Your task to perform on an android device: check data usage Image 0: 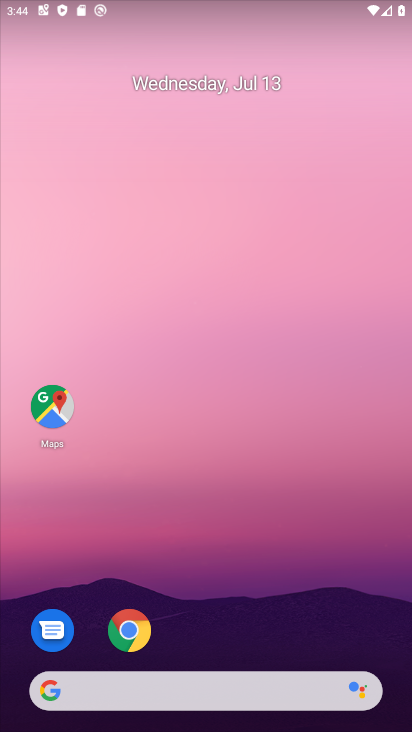
Step 0: drag from (257, 501) to (222, 28)
Your task to perform on an android device: check data usage Image 1: 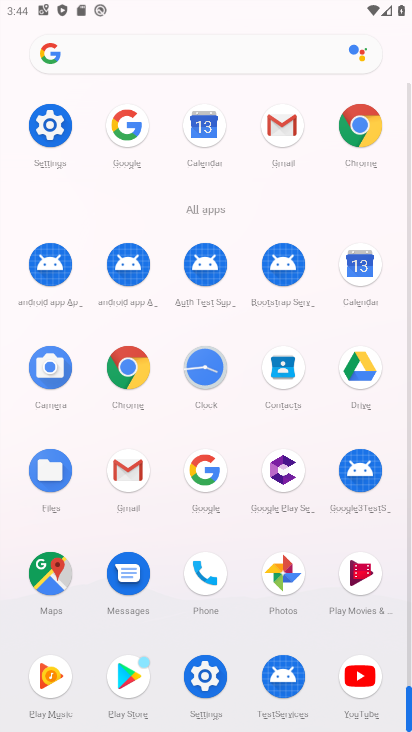
Step 1: click (36, 106)
Your task to perform on an android device: check data usage Image 2: 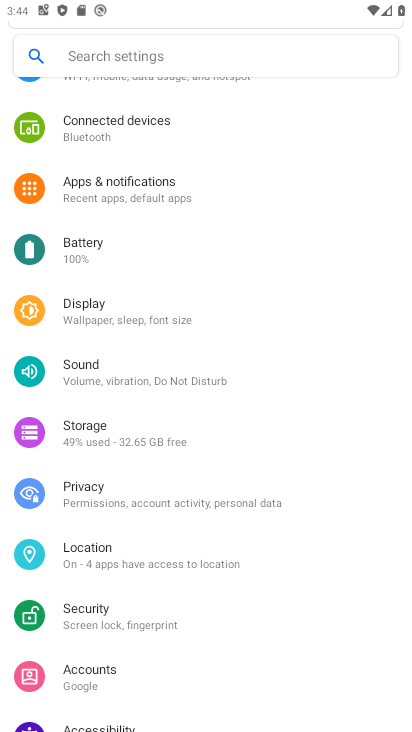
Step 2: drag from (156, 182) to (277, 546)
Your task to perform on an android device: check data usage Image 3: 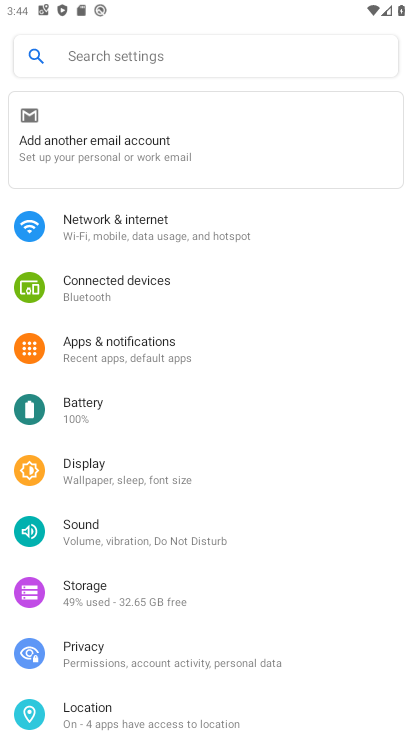
Step 3: click (109, 217)
Your task to perform on an android device: check data usage Image 4: 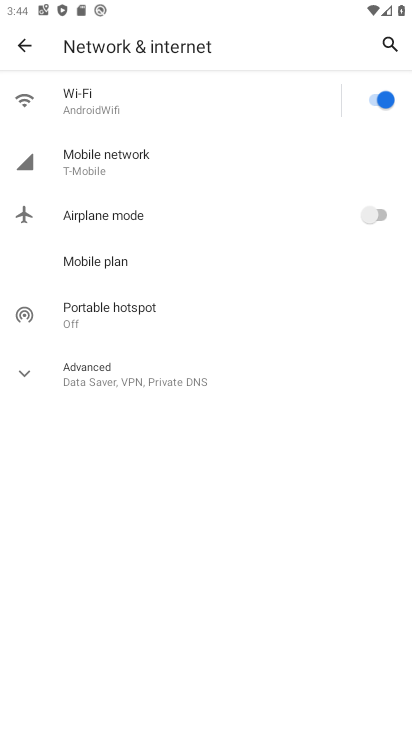
Step 4: click (83, 169)
Your task to perform on an android device: check data usage Image 5: 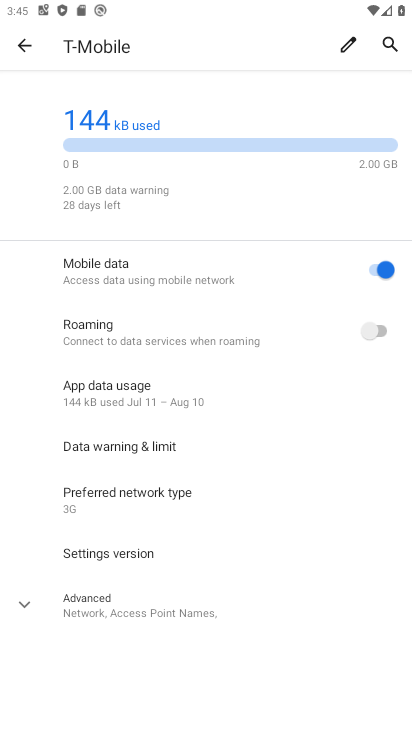
Step 5: task complete